Your task to perform on an android device: turn on priority inbox in the gmail app Image 0: 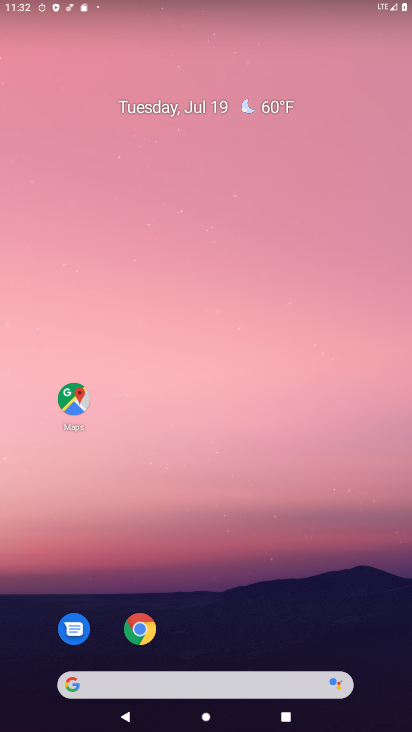
Step 0: drag from (272, 599) to (285, 56)
Your task to perform on an android device: turn on priority inbox in the gmail app Image 1: 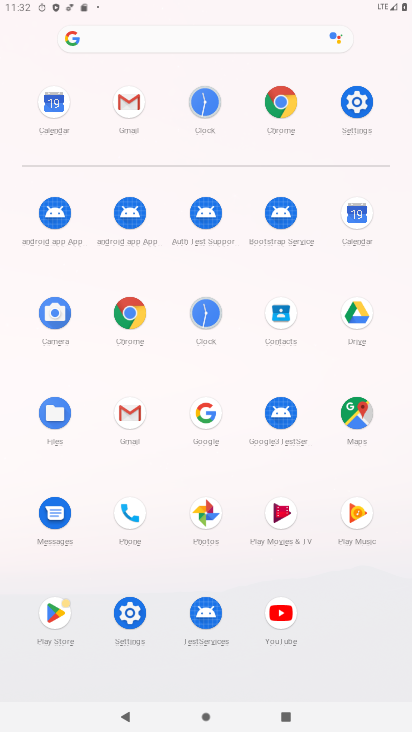
Step 1: click (124, 96)
Your task to perform on an android device: turn on priority inbox in the gmail app Image 2: 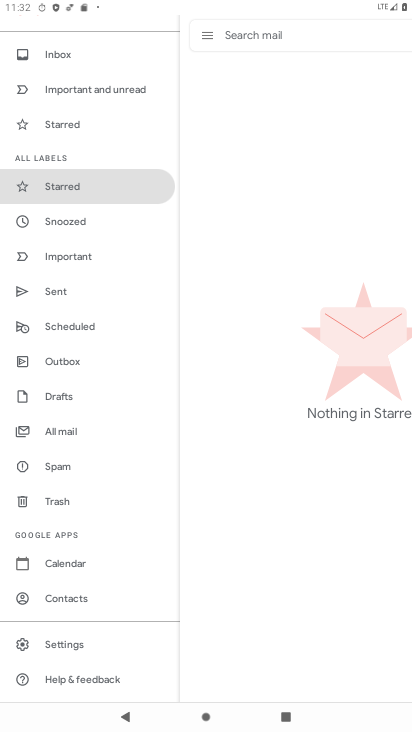
Step 2: click (69, 643)
Your task to perform on an android device: turn on priority inbox in the gmail app Image 3: 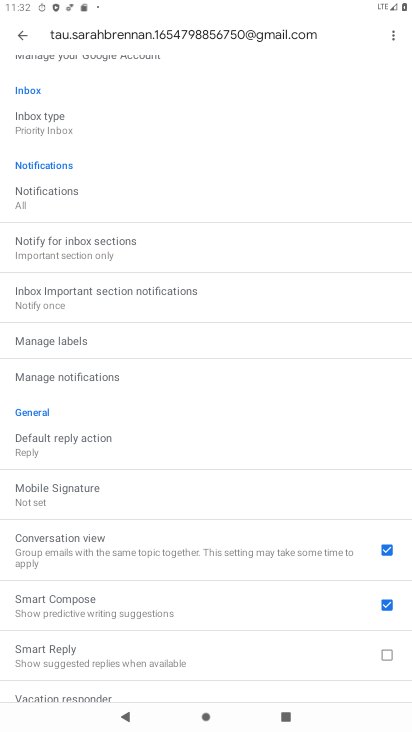
Step 3: click (51, 116)
Your task to perform on an android device: turn on priority inbox in the gmail app Image 4: 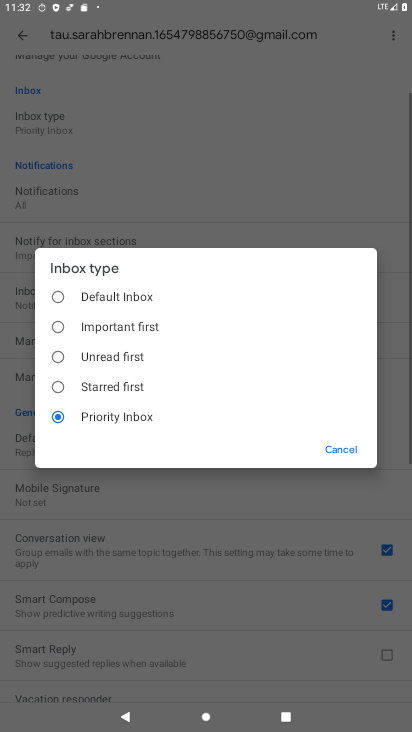
Step 4: task complete